Your task to perform on an android device: turn off smart reply in the gmail app Image 0: 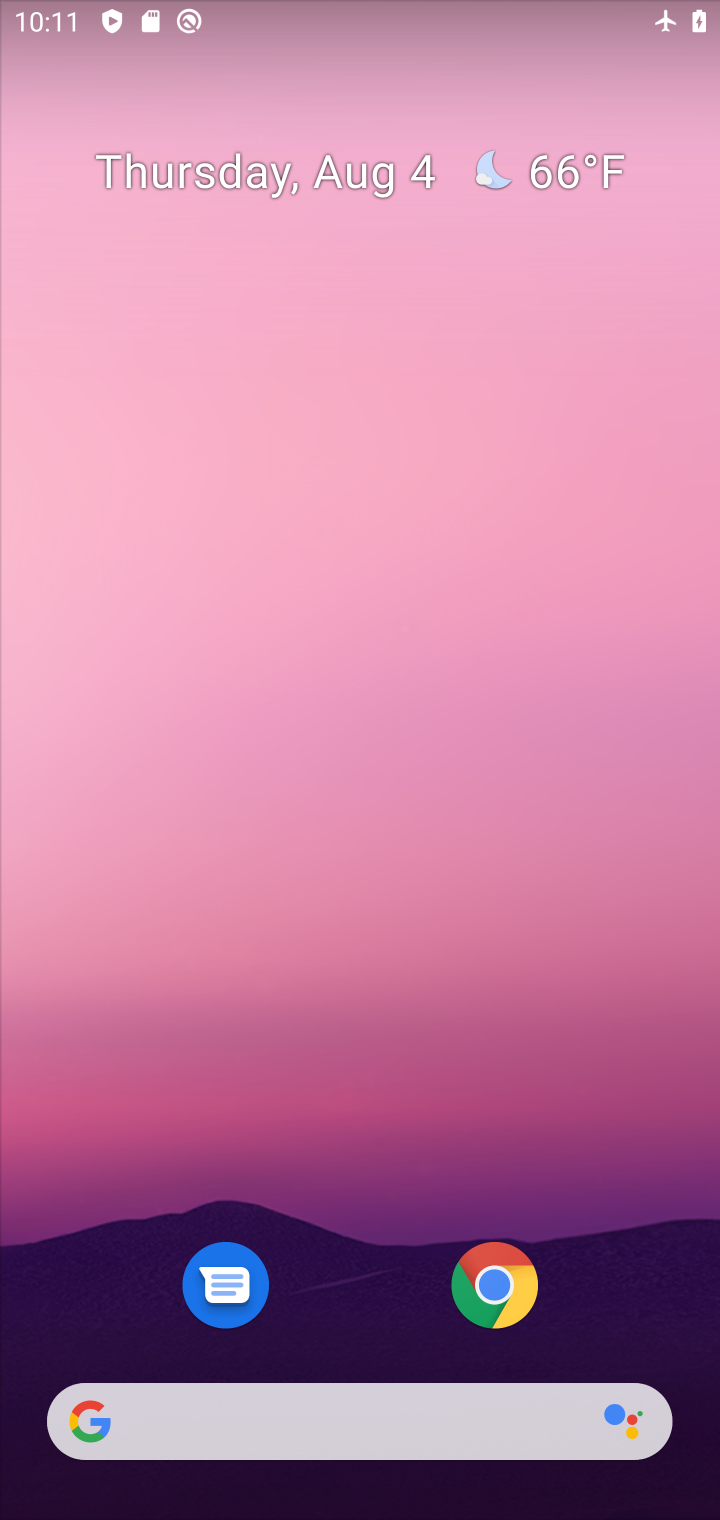
Step 0: press home button
Your task to perform on an android device: turn off smart reply in the gmail app Image 1: 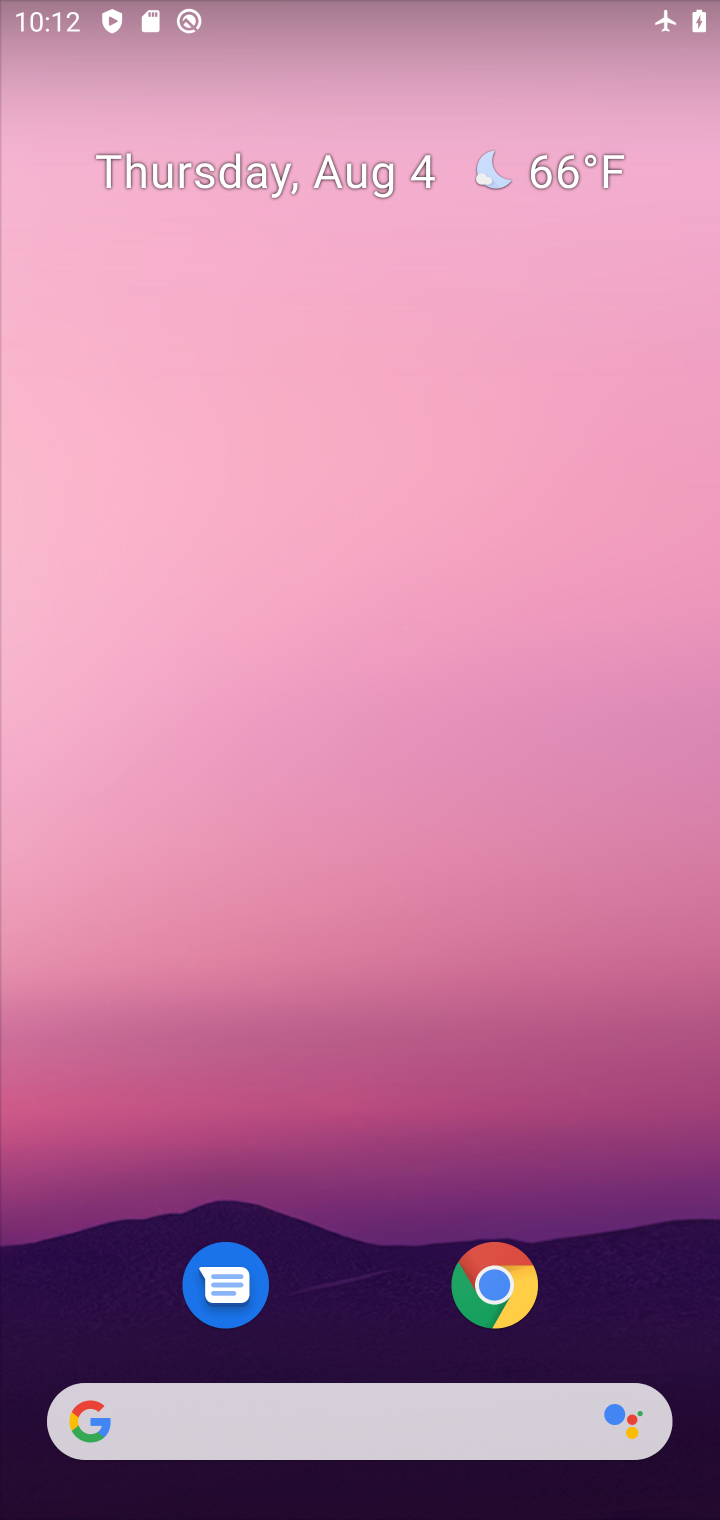
Step 1: drag from (350, 1227) to (381, 168)
Your task to perform on an android device: turn off smart reply in the gmail app Image 2: 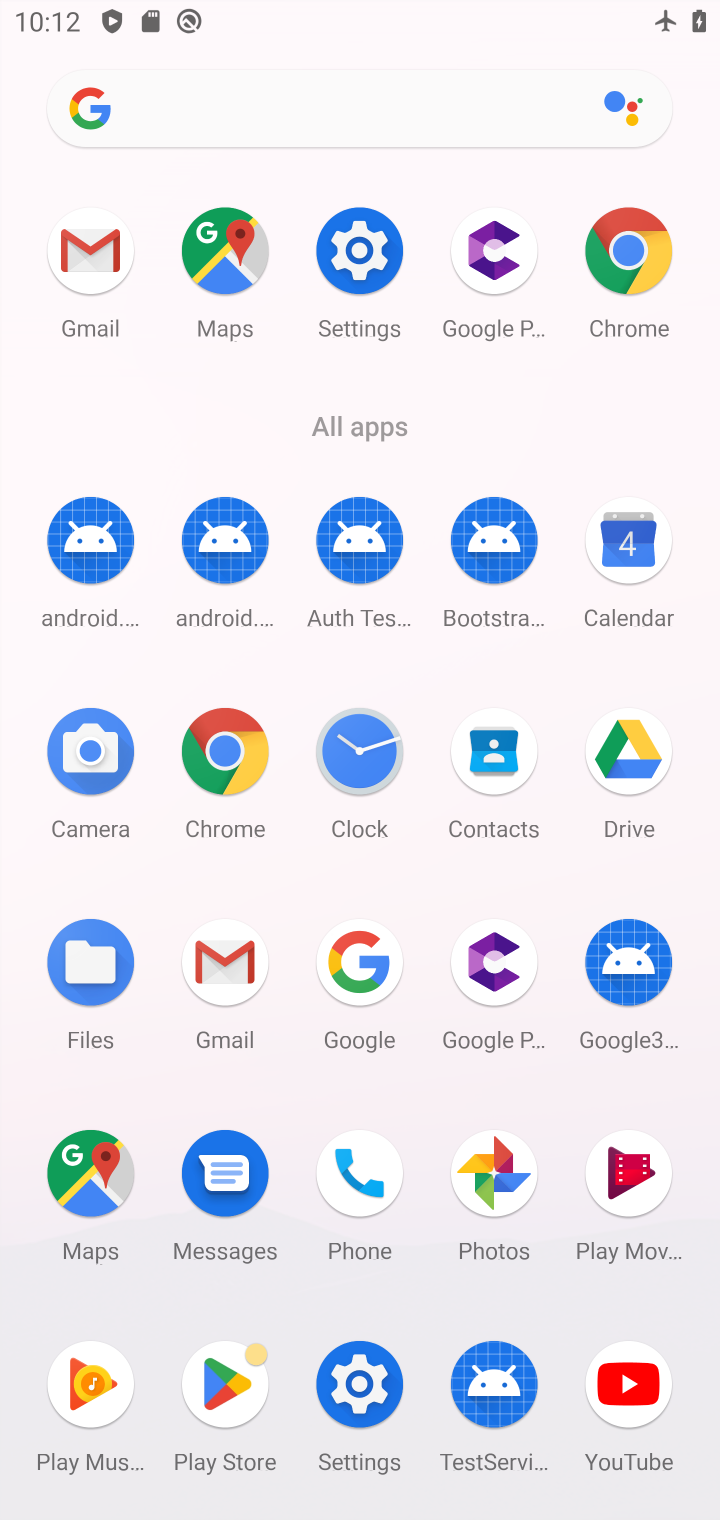
Step 2: click (210, 974)
Your task to perform on an android device: turn off smart reply in the gmail app Image 3: 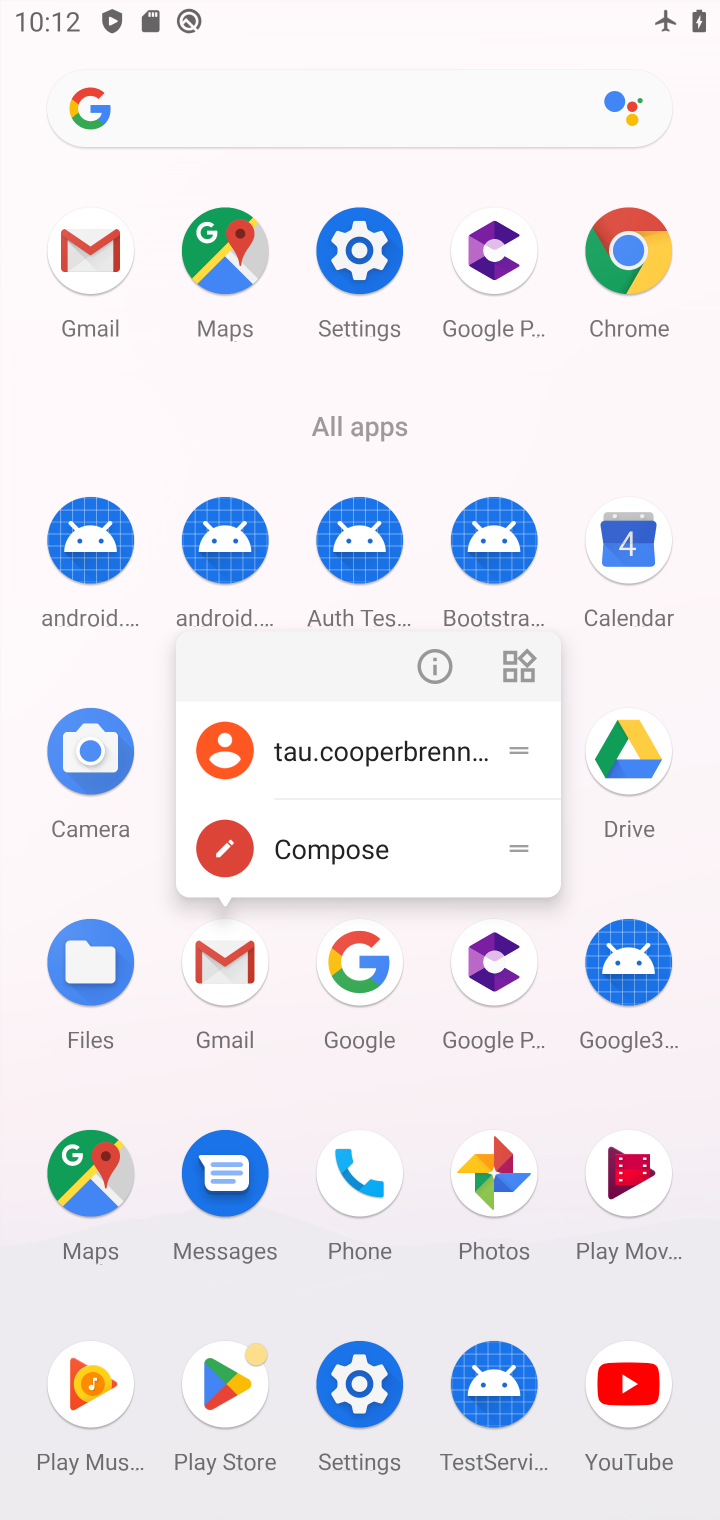
Step 3: click (221, 961)
Your task to perform on an android device: turn off smart reply in the gmail app Image 4: 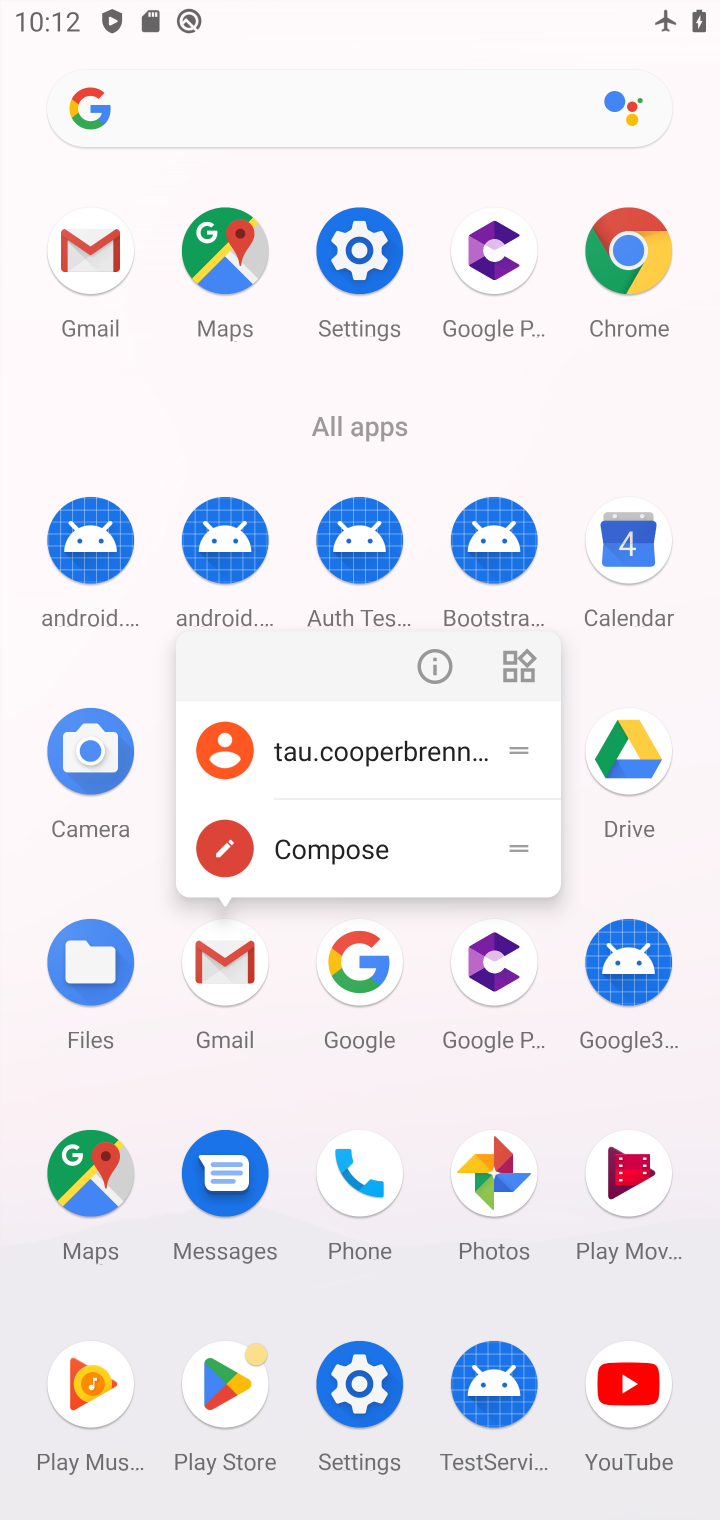
Step 4: click (221, 961)
Your task to perform on an android device: turn off smart reply in the gmail app Image 5: 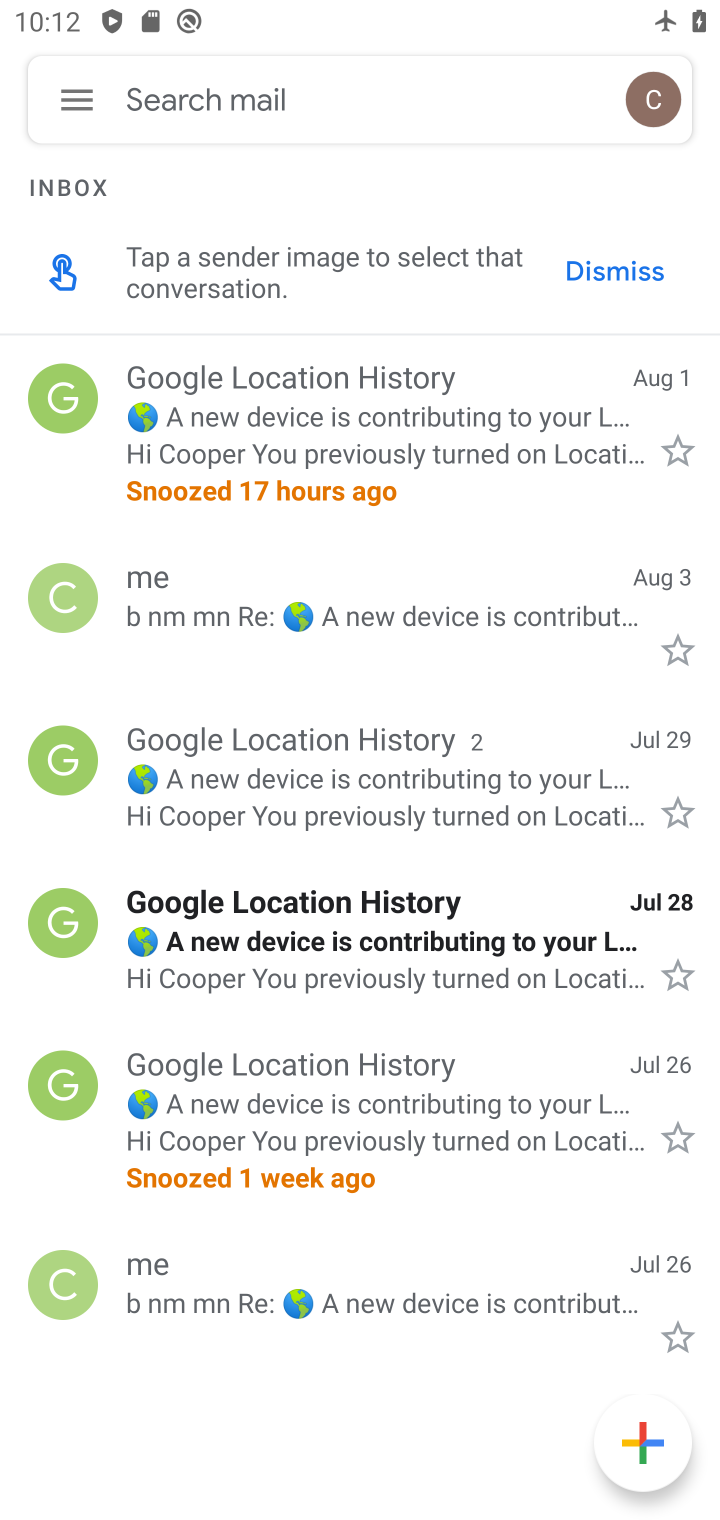
Step 5: click (64, 107)
Your task to perform on an android device: turn off smart reply in the gmail app Image 6: 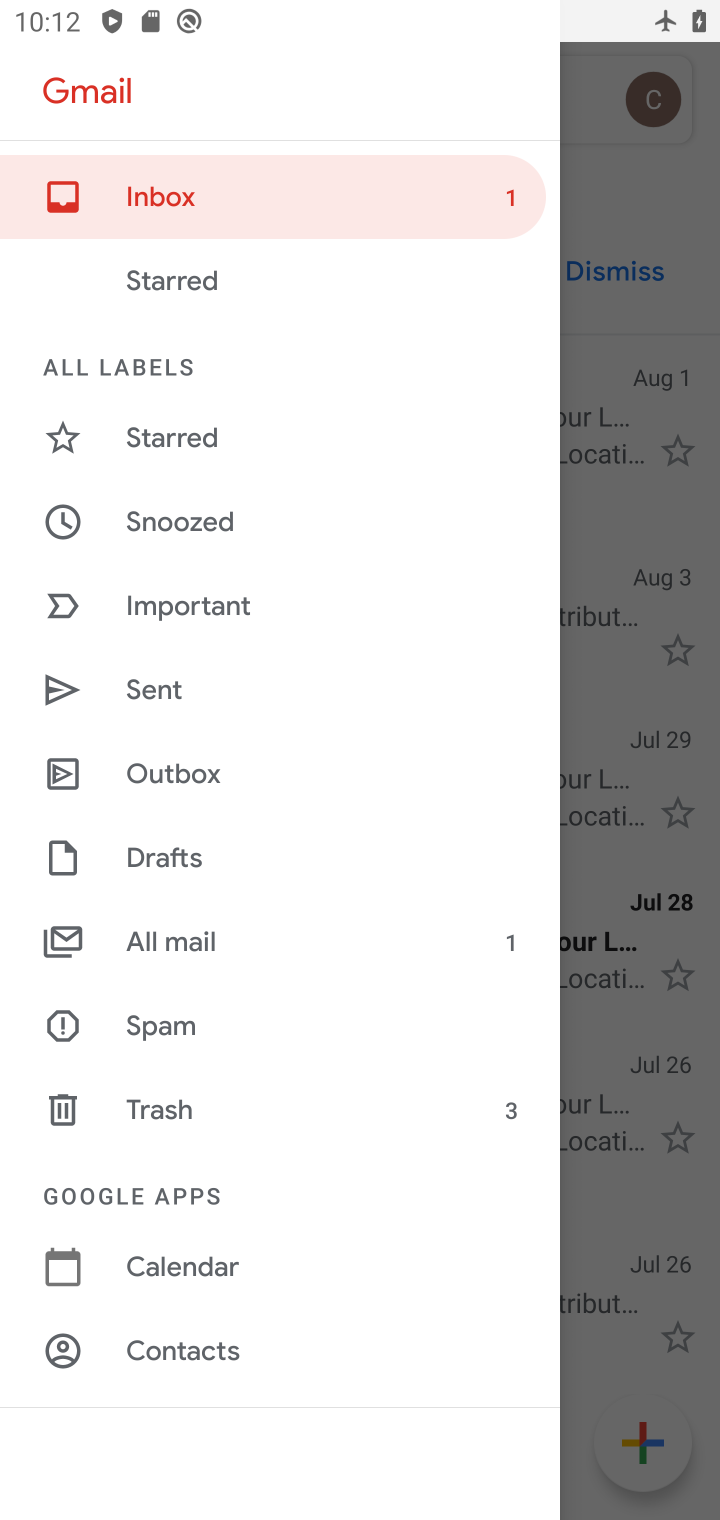
Step 6: drag from (233, 1232) to (221, 580)
Your task to perform on an android device: turn off smart reply in the gmail app Image 7: 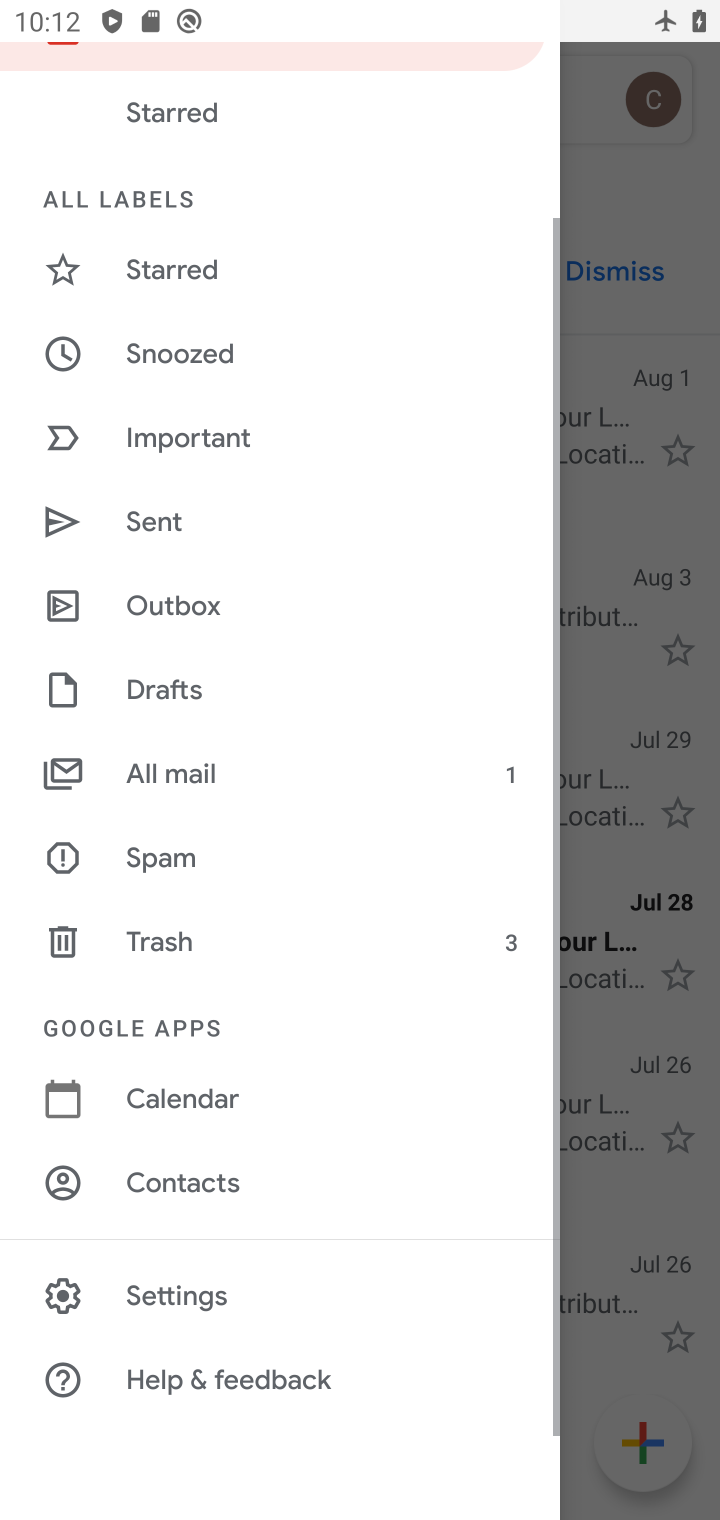
Step 7: click (135, 1263)
Your task to perform on an android device: turn off smart reply in the gmail app Image 8: 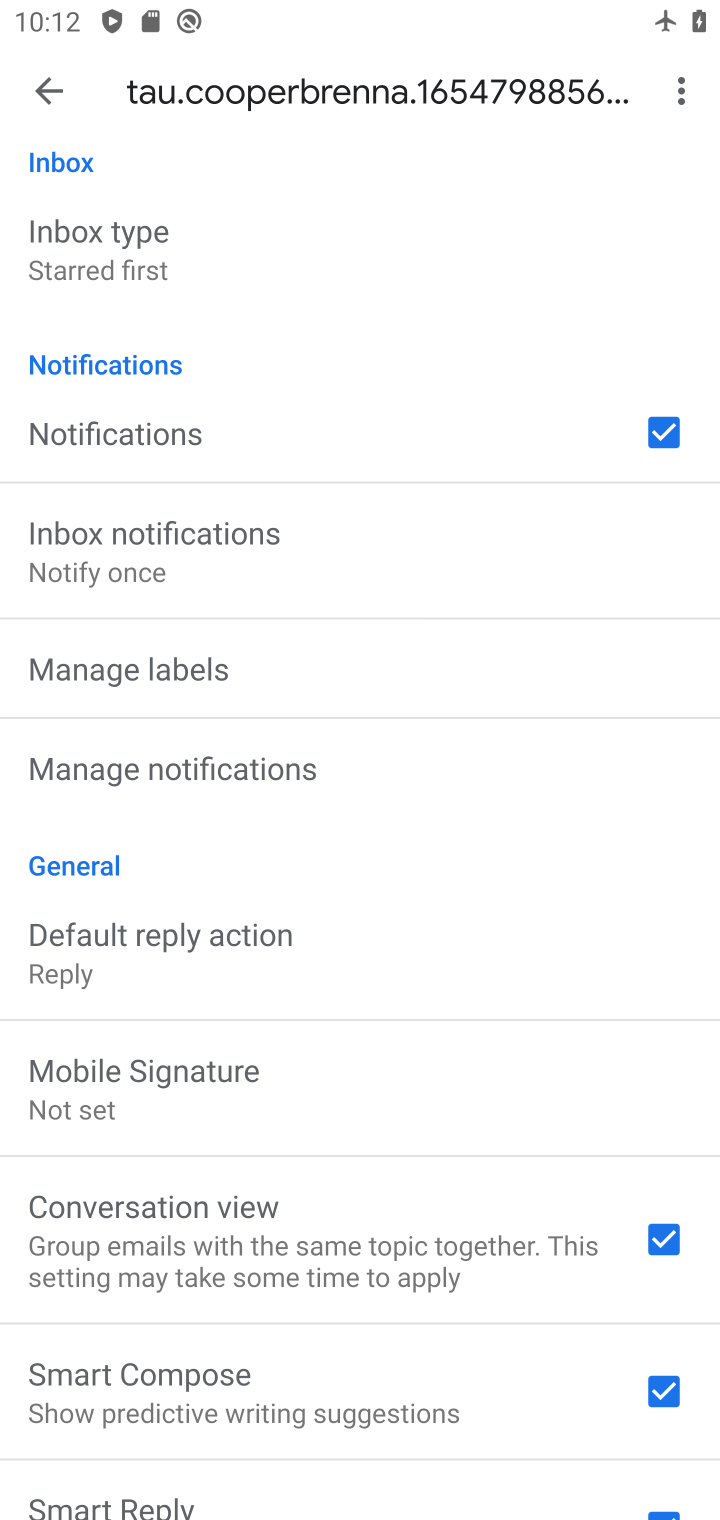
Step 8: drag from (252, 1286) to (284, 503)
Your task to perform on an android device: turn off smart reply in the gmail app Image 9: 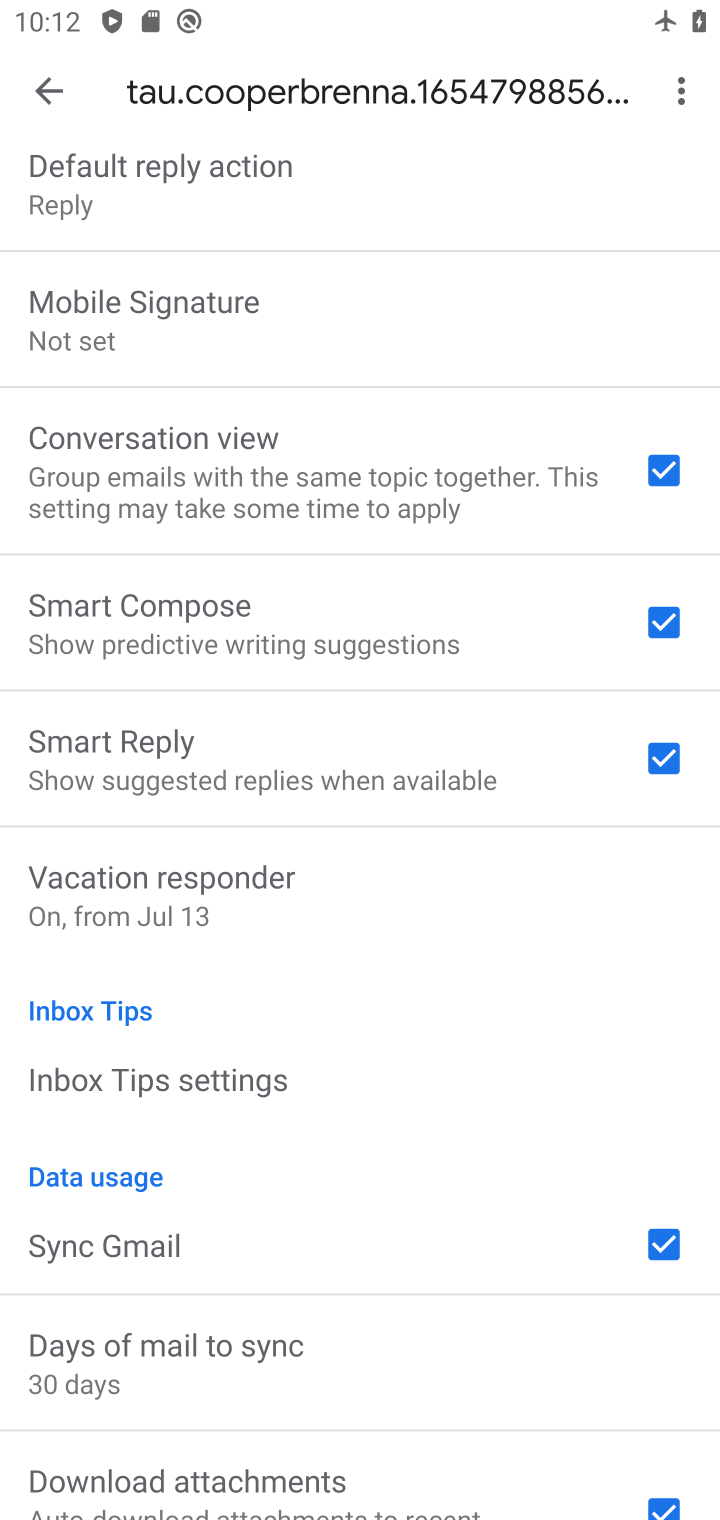
Step 9: click (271, 733)
Your task to perform on an android device: turn off smart reply in the gmail app Image 10: 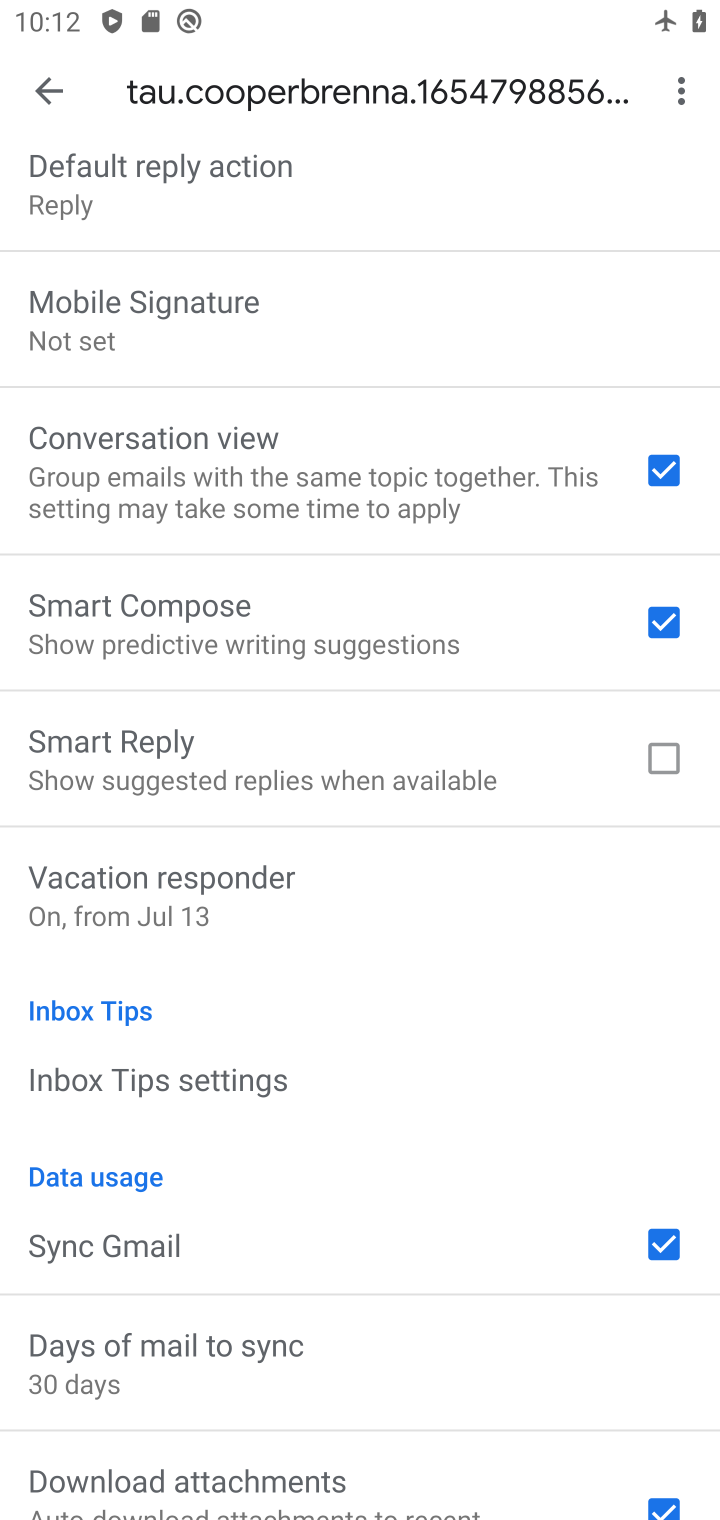
Step 10: task complete